Your task to perform on an android device: read, delete, or share a saved page in the chrome app Image 0: 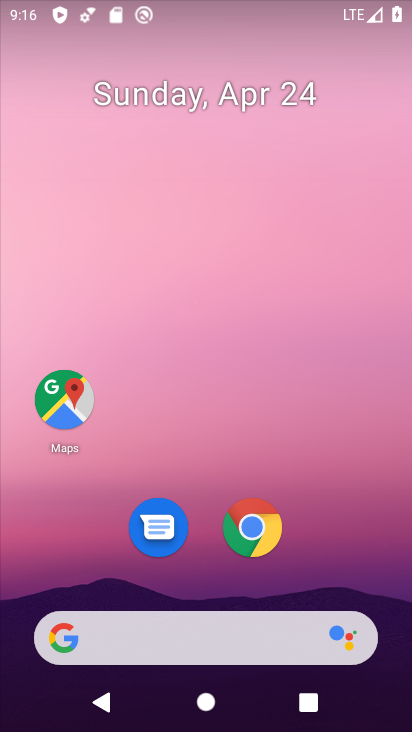
Step 0: click (270, 533)
Your task to perform on an android device: read, delete, or share a saved page in the chrome app Image 1: 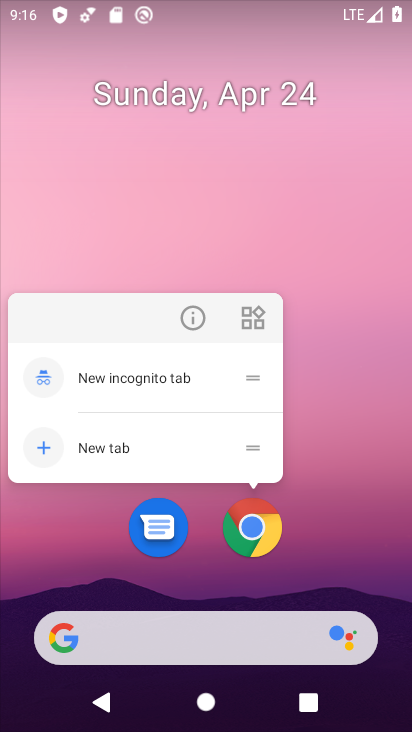
Step 1: click (270, 533)
Your task to perform on an android device: read, delete, or share a saved page in the chrome app Image 2: 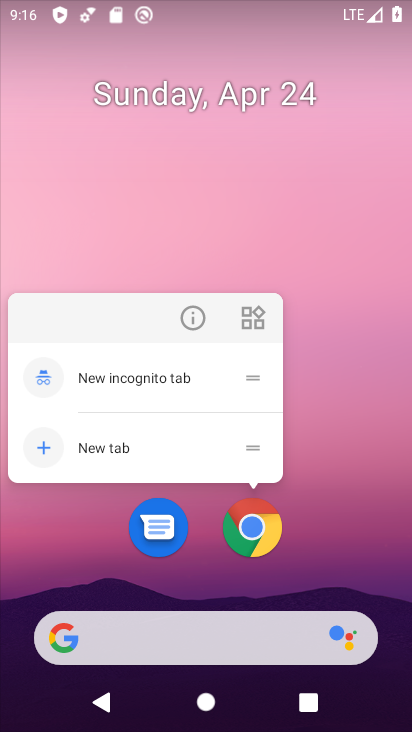
Step 2: click (270, 530)
Your task to perform on an android device: read, delete, or share a saved page in the chrome app Image 3: 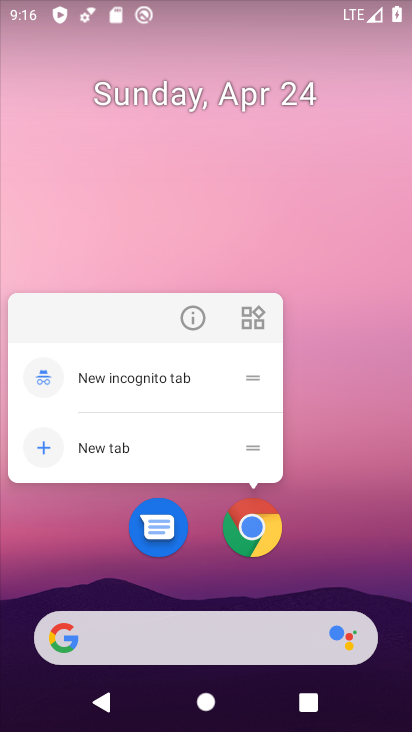
Step 3: drag from (372, 545) to (365, 0)
Your task to perform on an android device: read, delete, or share a saved page in the chrome app Image 4: 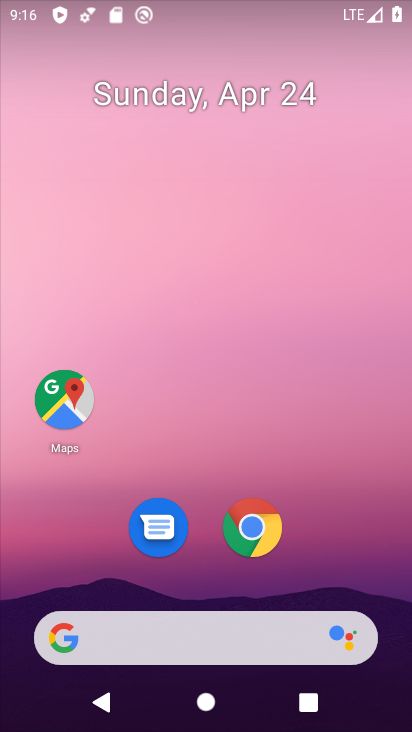
Step 4: drag from (200, 566) to (184, 6)
Your task to perform on an android device: read, delete, or share a saved page in the chrome app Image 5: 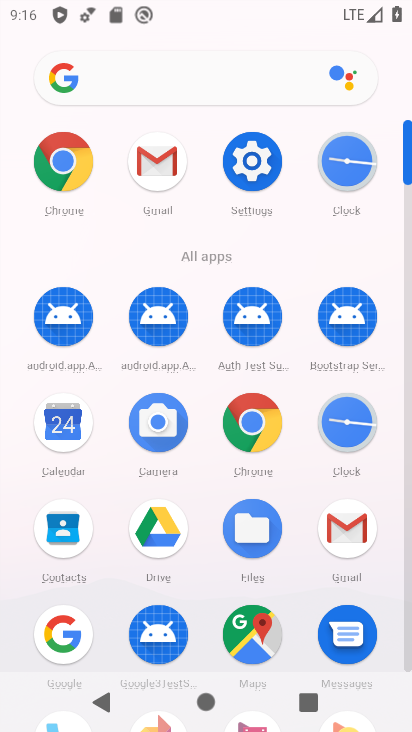
Step 5: click (249, 430)
Your task to perform on an android device: read, delete, or share a saved page in the chrome app Image 6: 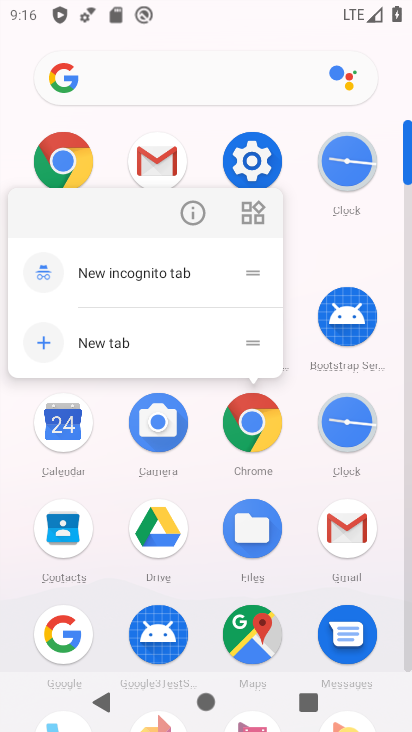
Step 6: click (249, 431)
Your task to perform on an android device: read, delete, or share a saved page in the chrome app Image 7: 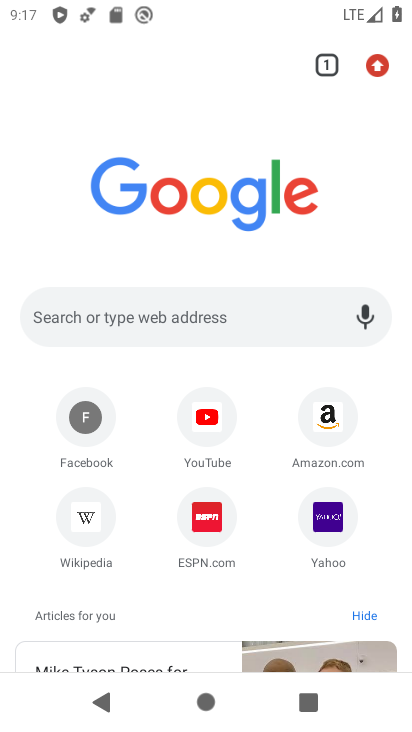
Step 7: task complete